Your task to perform on an android device: delete a single message in the gmail app Image 0: 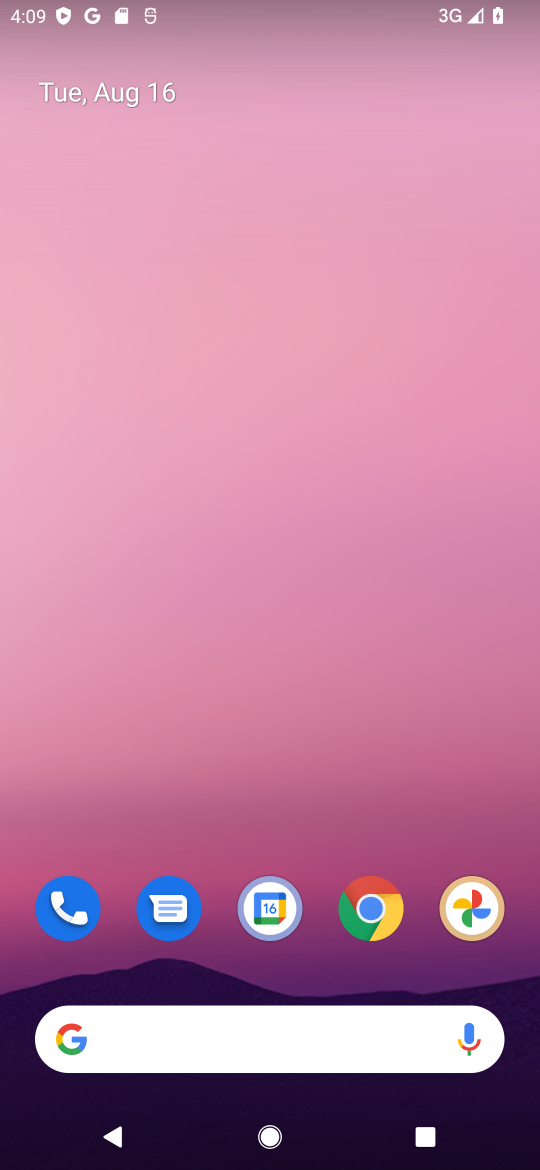
Step 0: drag from (292, 986) to (445, 1)
Your task to perform on an android device: delete a single message in the gmail app Image 1: 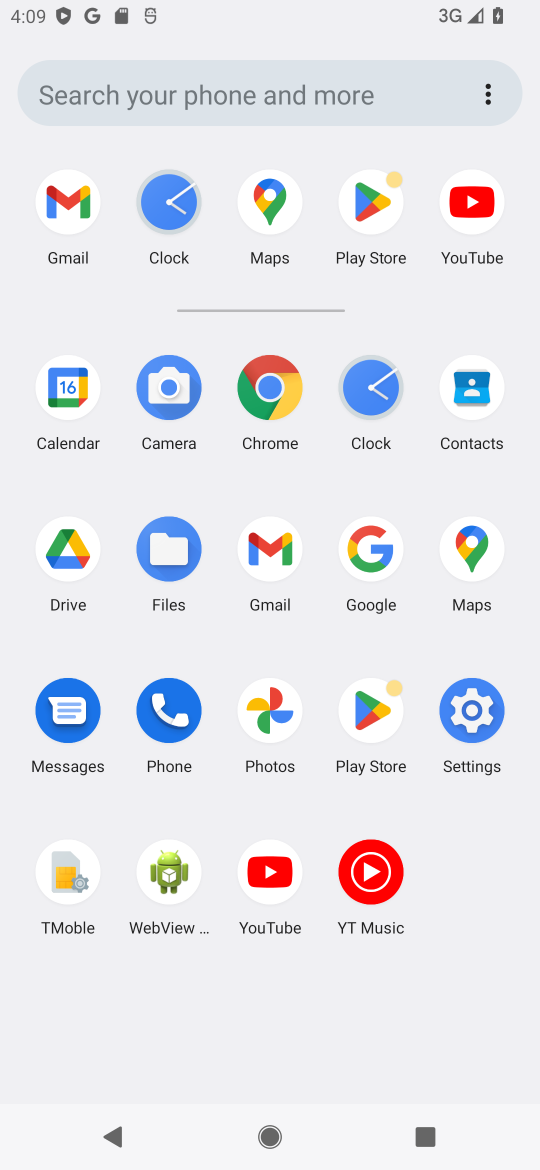
Step 1: click (51, 219)
Your task to perform on an android device: delete a single message in the gmail app Image 2: 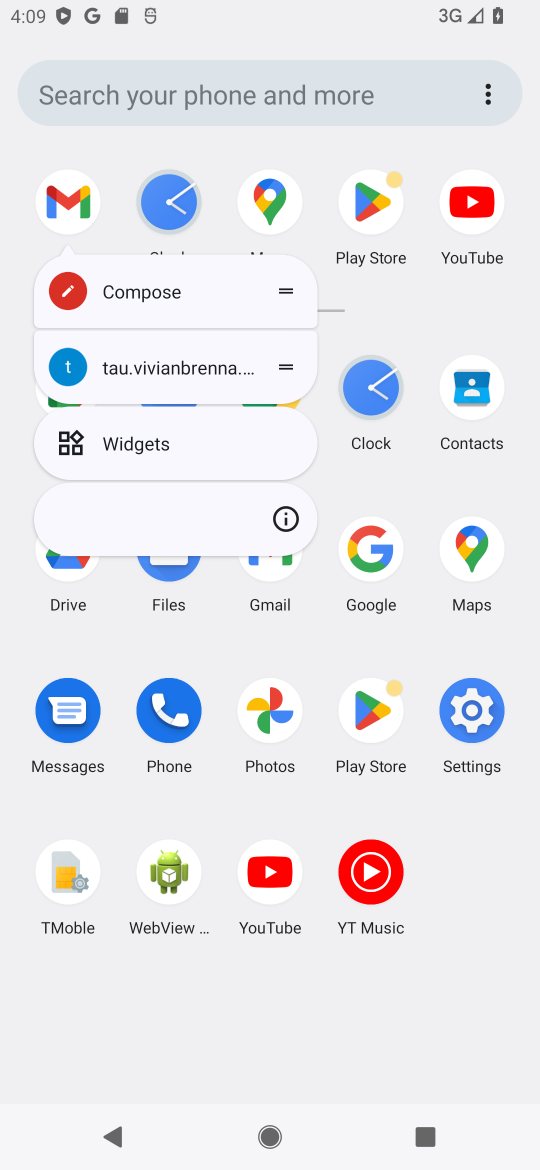
Step 2: click (273, 1014)
Your task to perform on an android device: delete a single message in the gmail app Image 3: 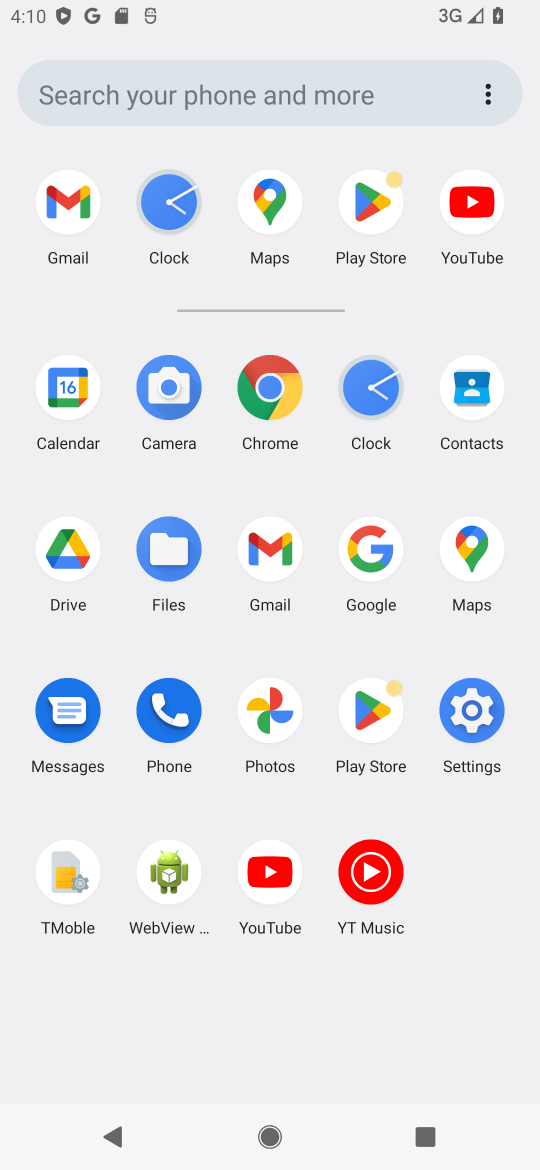
Step 3: click (50, 197)
Your task to perform on an android device: delete a single message in the gmail app Image 4: 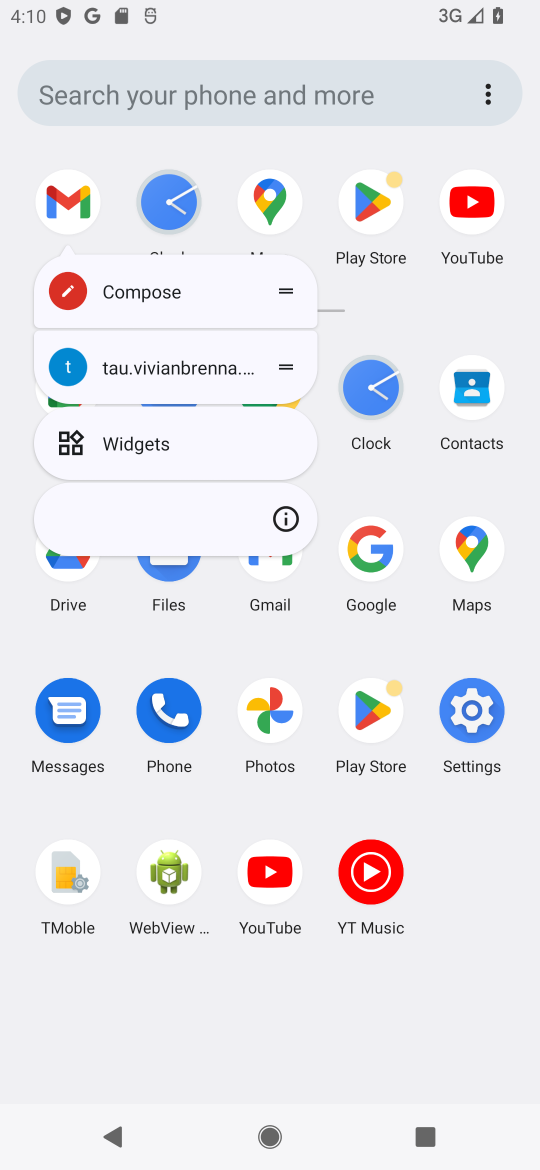
Step 4: click (61, 198)
Your task to perform on an android device: delete a single message in the gmail app Image 5: 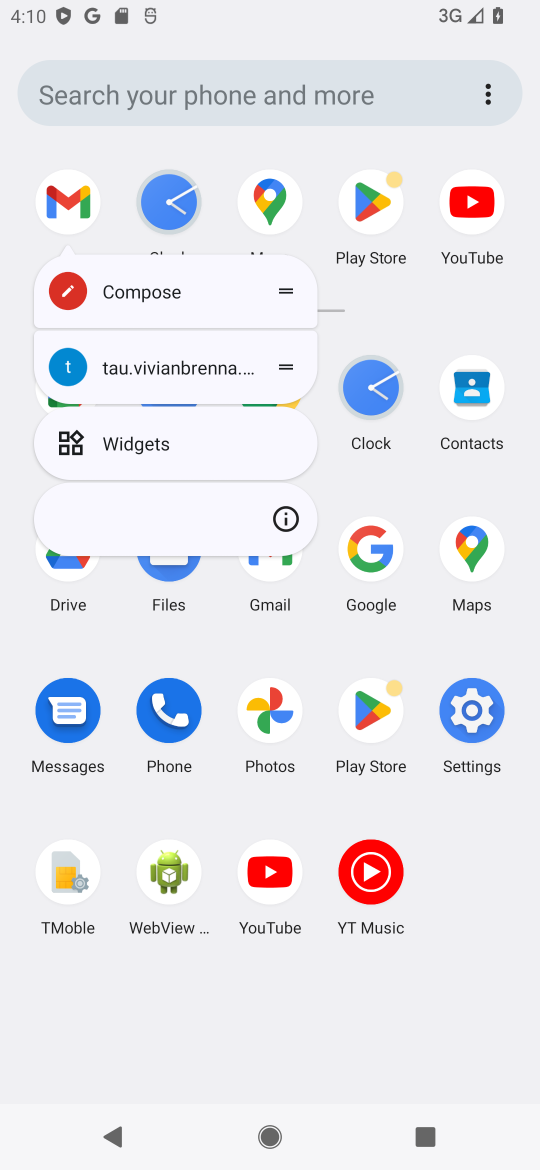
Step 5: click (70, 196)
Your task to perform on an android device: delete a single message in the gmail app Image 6: 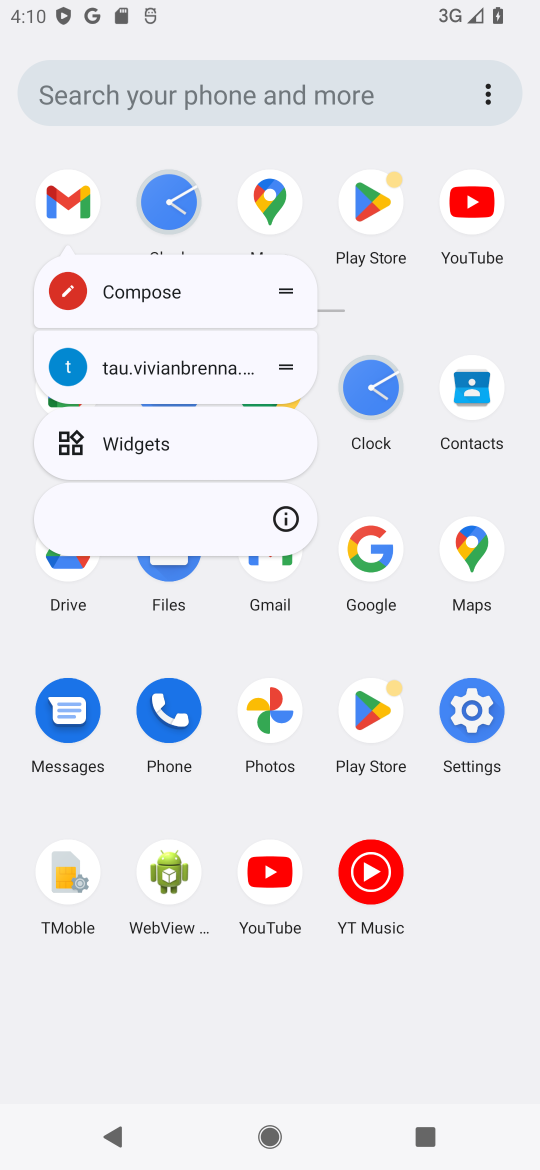
Step 6: click (70, 196)
Your task to perform on an android device: delete a single message in the gmail app Image 7: 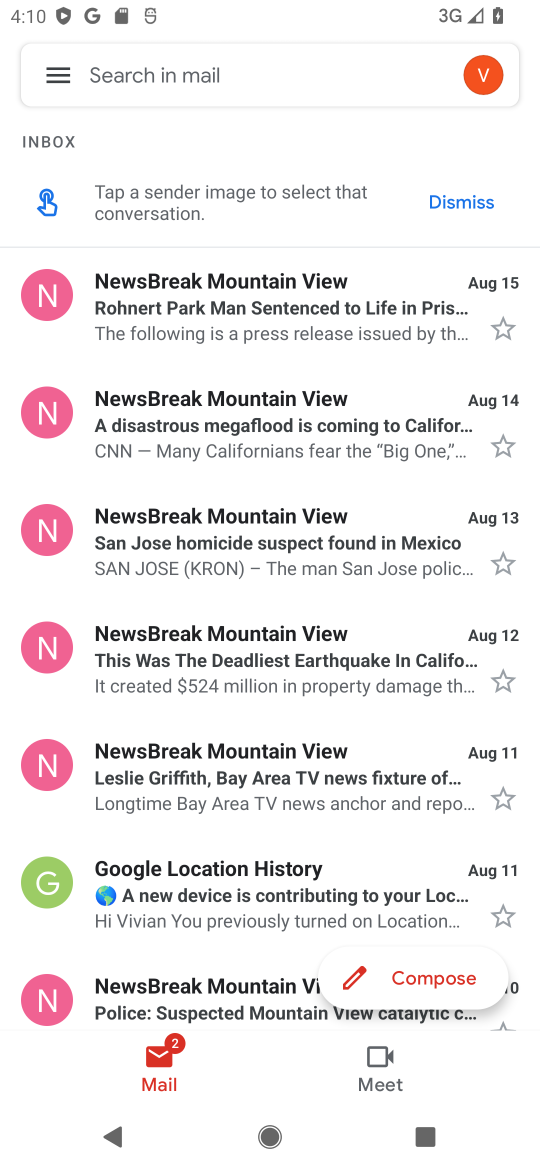
Step 7: click (53, 82)
Your task to perform on an android device: delete a single message in the gmail app Image 8: 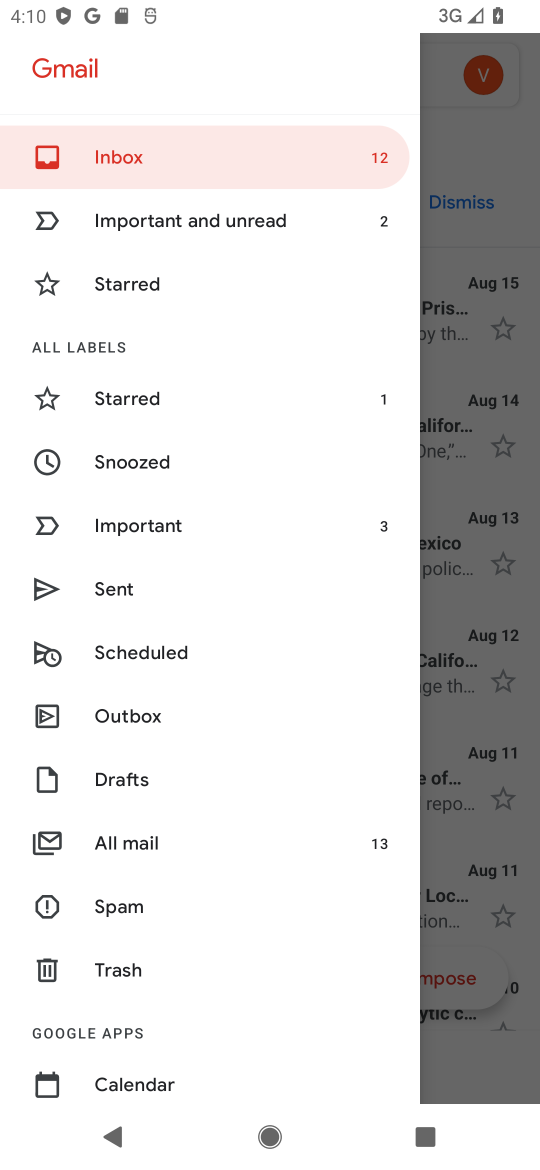
Step 8: click (151, 844)
Your task to perform on an android device: delete a single message in the gmail app Image 9: 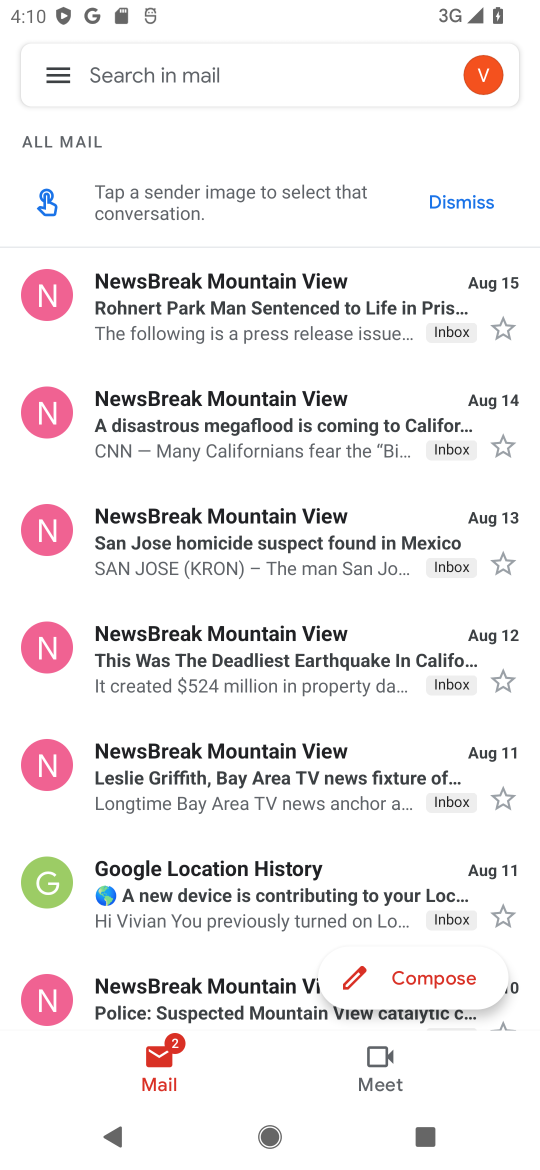
Step 9: click (219, 306)
Your task to perform on an android device: delete a single message in the gmail app Image 10: 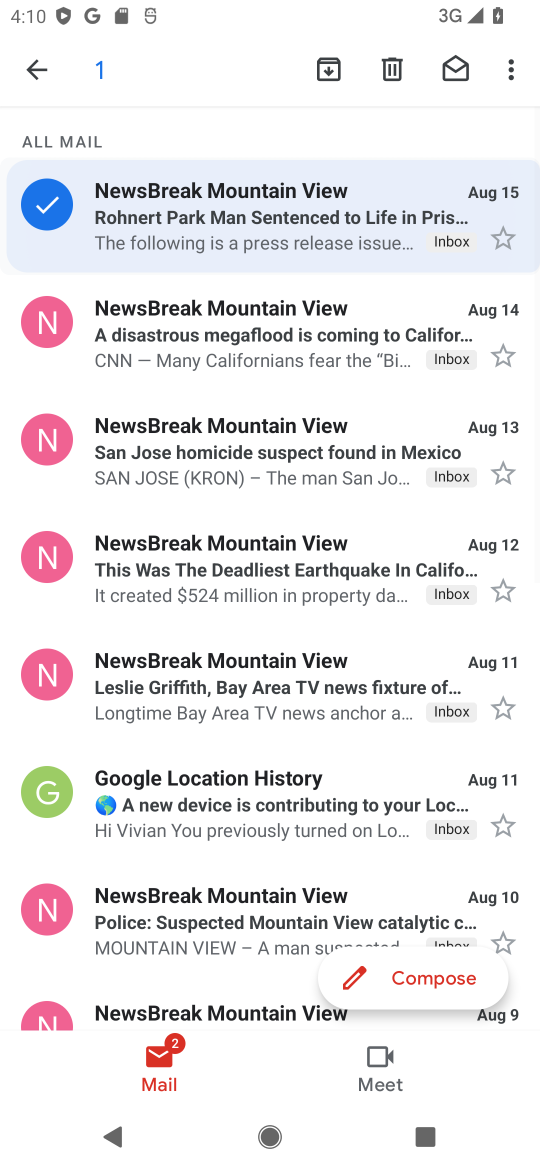
Step 10: click (385, 70)
Your task to perform on an android device: delete a single message in the gmail app Image 11: 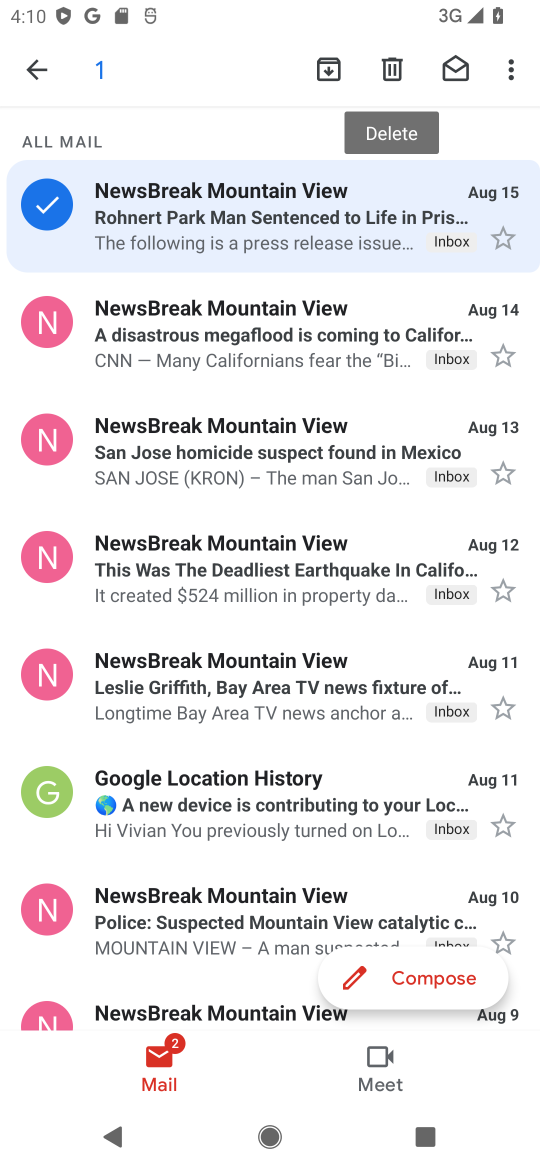
Step 11: click (391, 72)
Your task to perform on an android device: delete a single message in the gmail app Image 12: 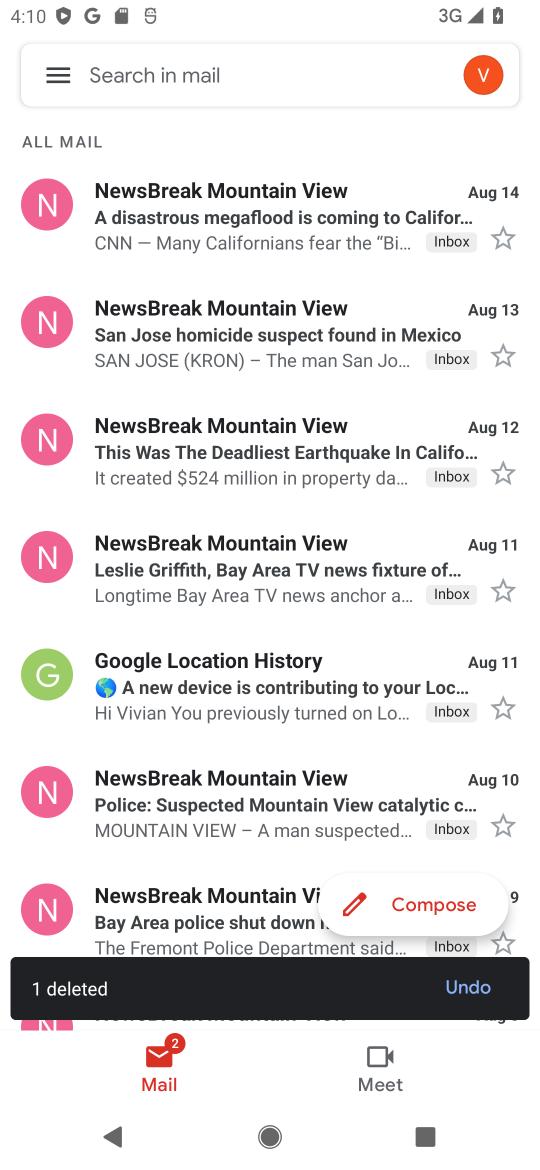
Step 12: task complete